Your task to perform on an android device: delete browsing data in the chrome app Image 0: 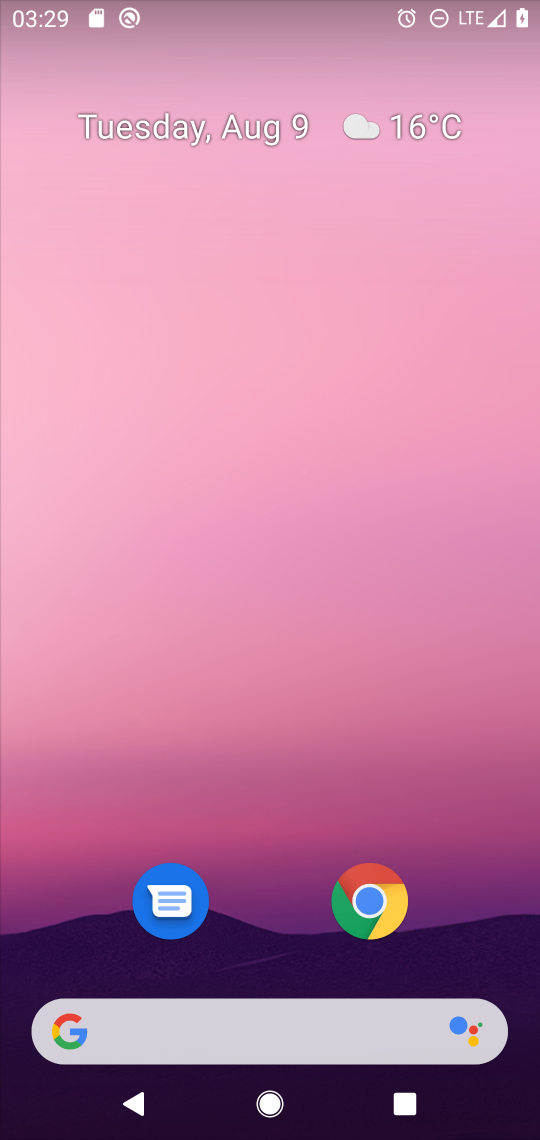
Step 0: click (366, 901)
Your task to perform on an android device: delete browsing data in the chrome app Image 1: 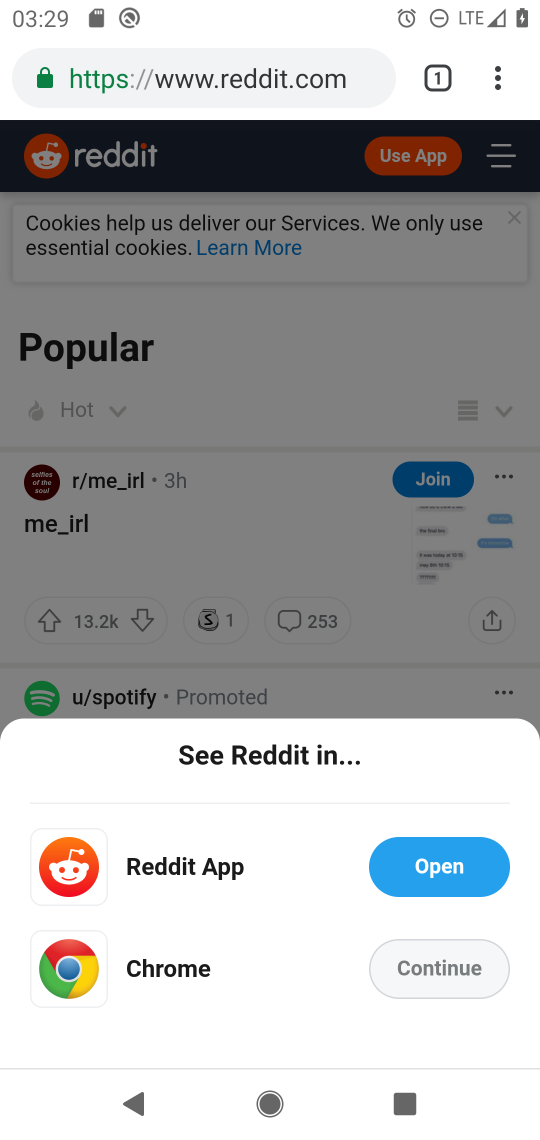
Step 1: click (488, 88)
Your task to perform on an android device: delete browsing data in the chrome app Image 2: 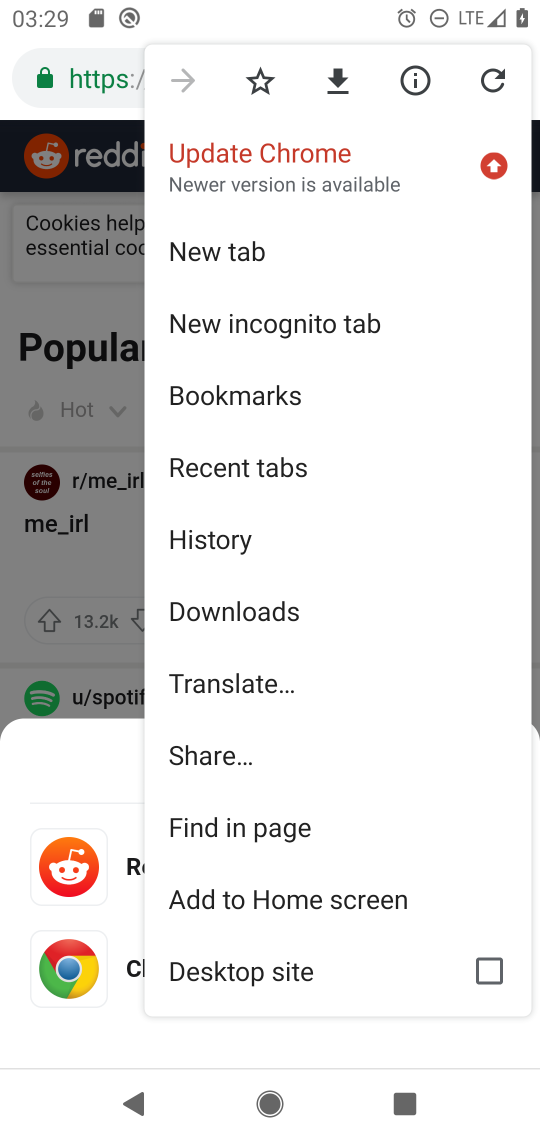
Step 2: click (207, 529)
Your task to perform on an android device: delete browsing data in the chrome app Image 3: 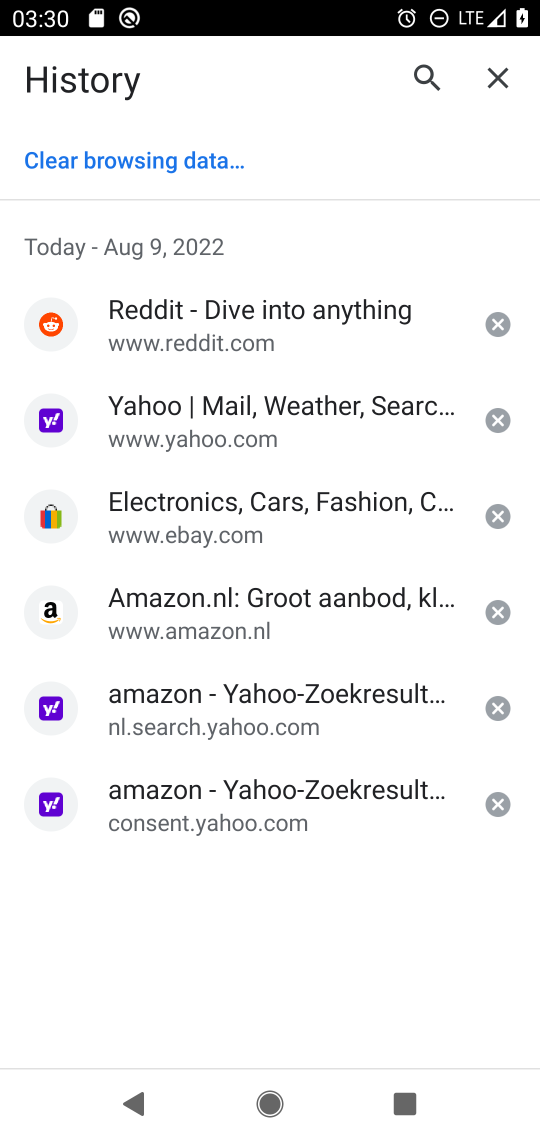
Step 3: click (116, 154)
Your task to perform on an android device: delete browsing data in the chrome app Image 4: 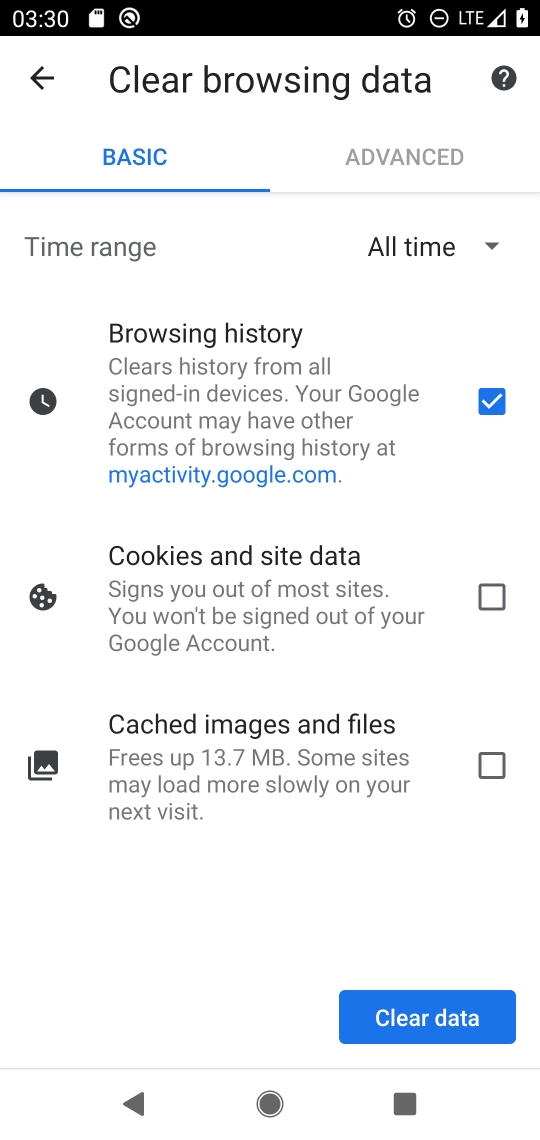
Step 4: click (434, 1010)
Your task to perform on an android device: delete browsing data in the chrome app Image 5: 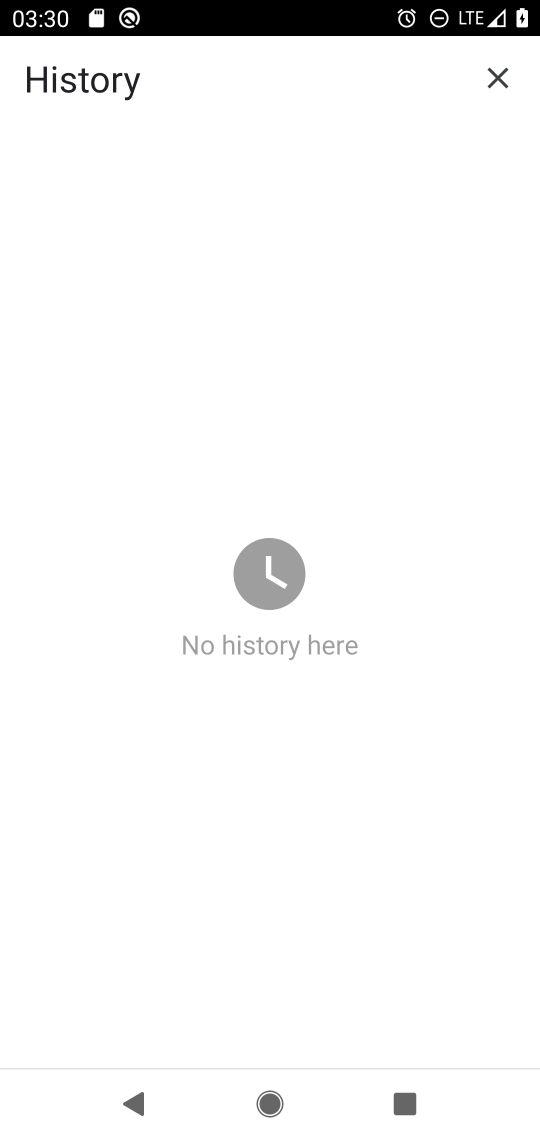
Step 5: task complete